Your task to perform on an android device: Open Google Chrome Image 0: 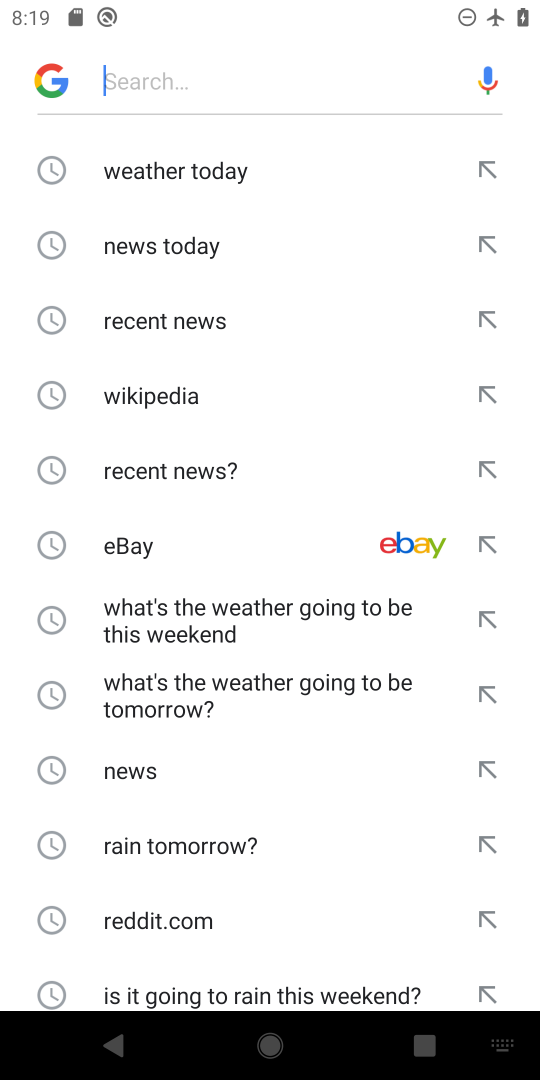
Step 0: press home button
Your task to perform on an android device: Open Google Chrome Image 1: 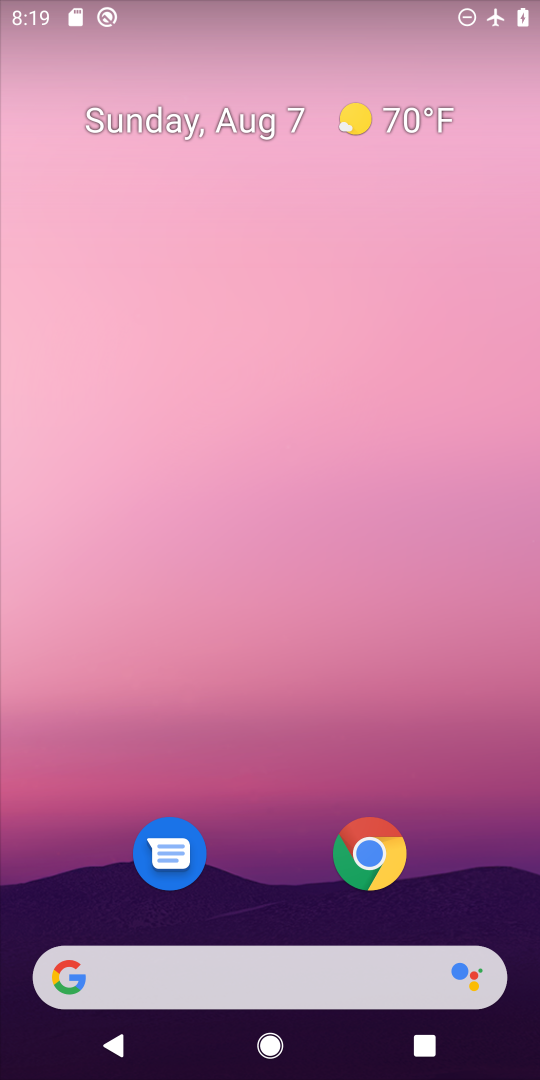
Step 1: click (396, 868)
Your task to perform on an android device: Open Google Chrome Image 2: 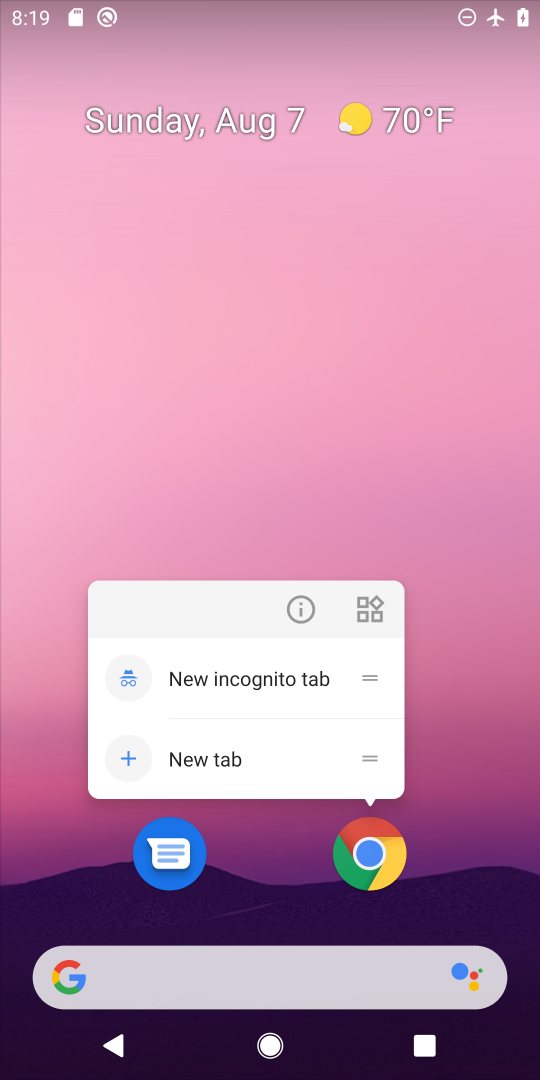
Step 2: click (388, 886)
Your task to perform on an android device: Open Google Chrome Image 3: 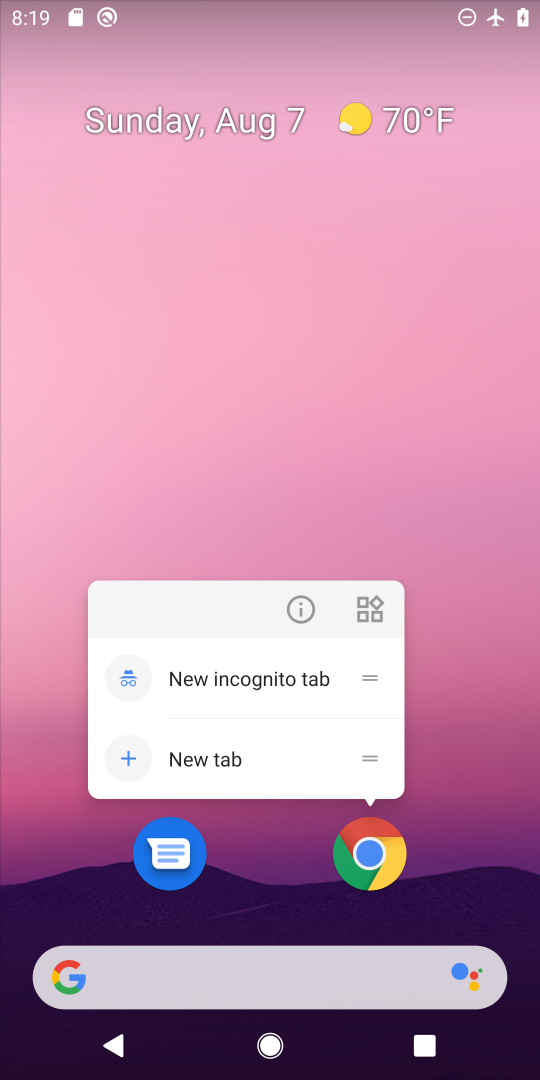
Step 3: click (396, 889)
Your task to perform on an android device: Open Google Chrome Image 4: 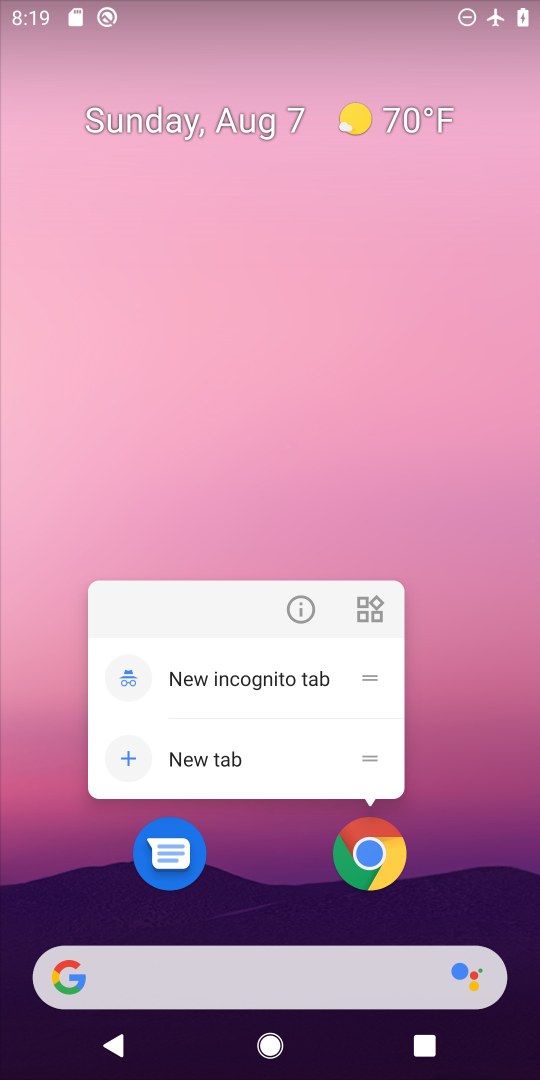
Step 4: click (395, 870)
Your task to perform on an android device: Open Google Chrome Image 5: 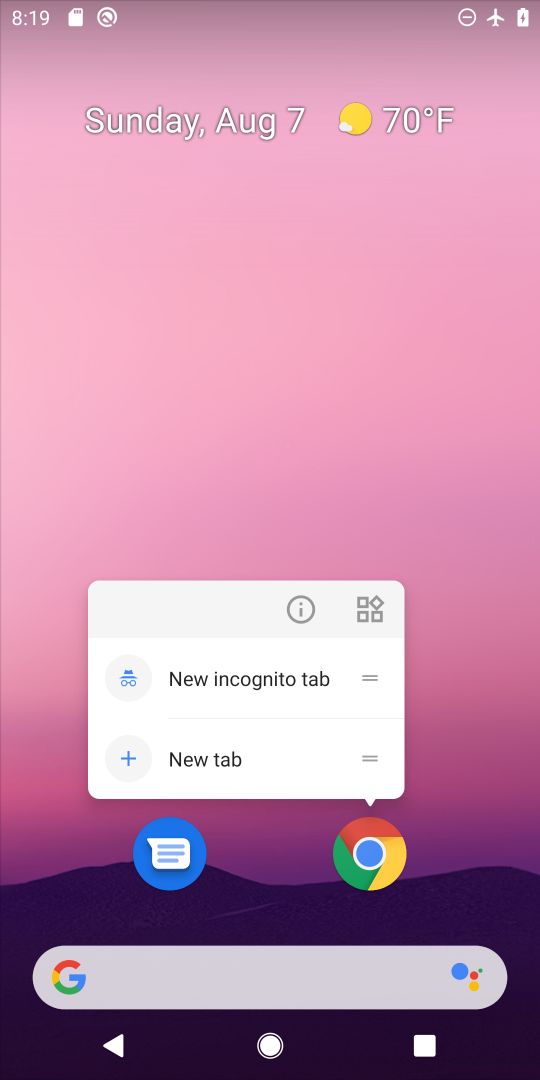
Step 5: click (374, 853)
Your task to perform on an android device: Open Google Chrome Image 6: 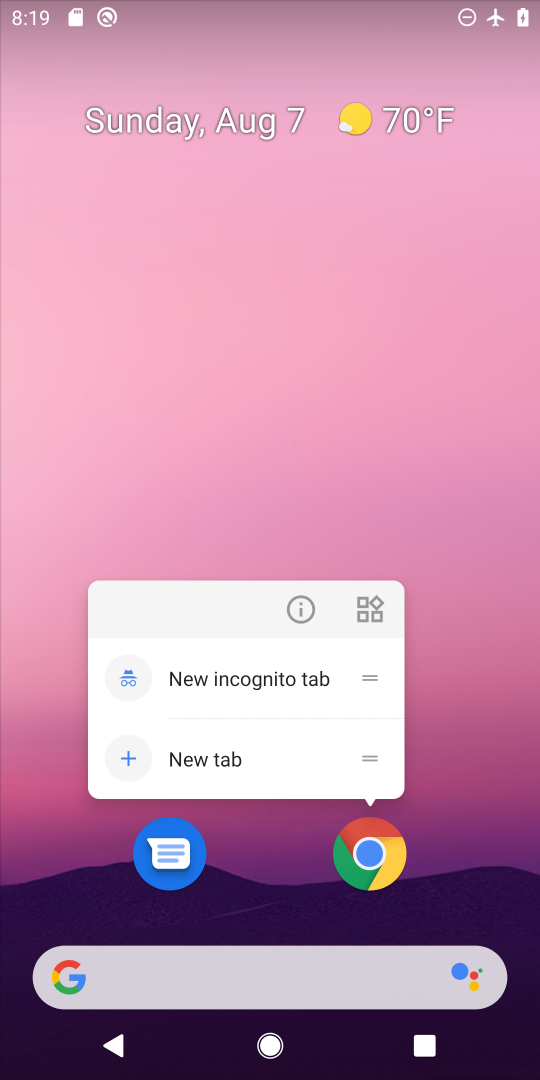
Step 6: click (377, 853)
Your task to perform on an android device: Open Google Chrome Image 7: 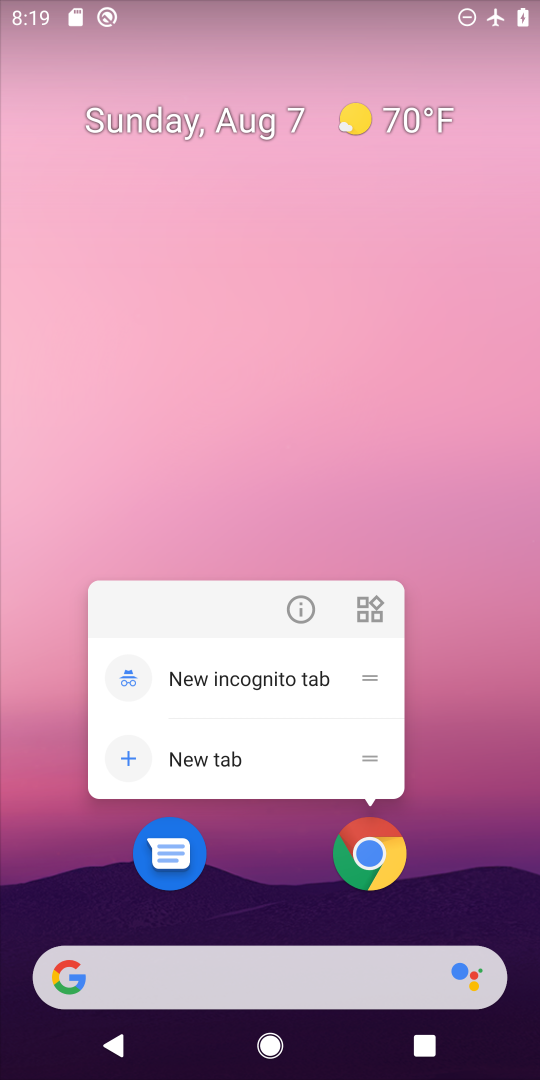
Step 7: click (379, 863)
Your task to perform on an android device: Open Google Chrome Image 8: 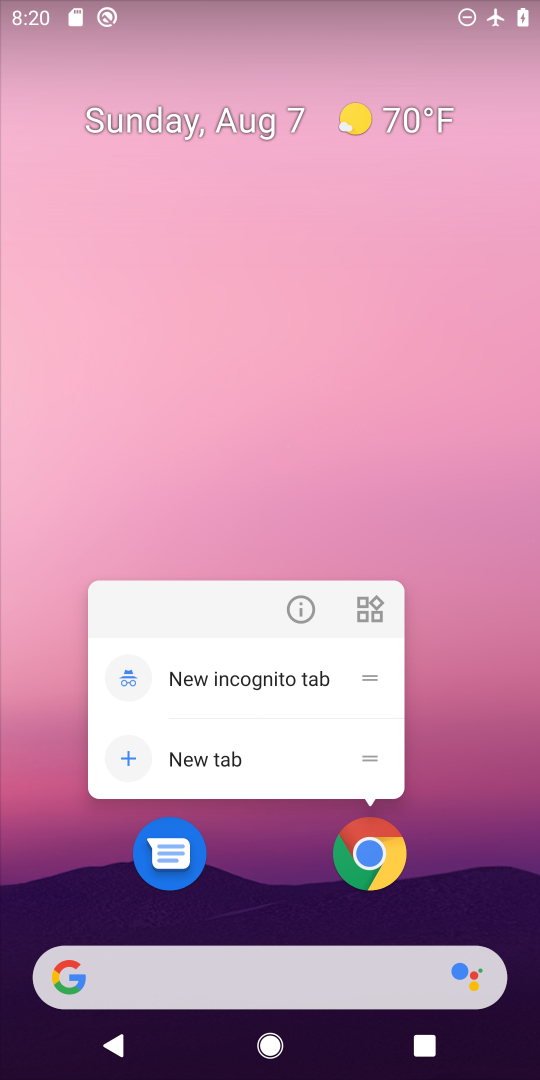
Step 8: click (386, 869)
Your task to perform on an android device: Open Google Chrome Image 9: 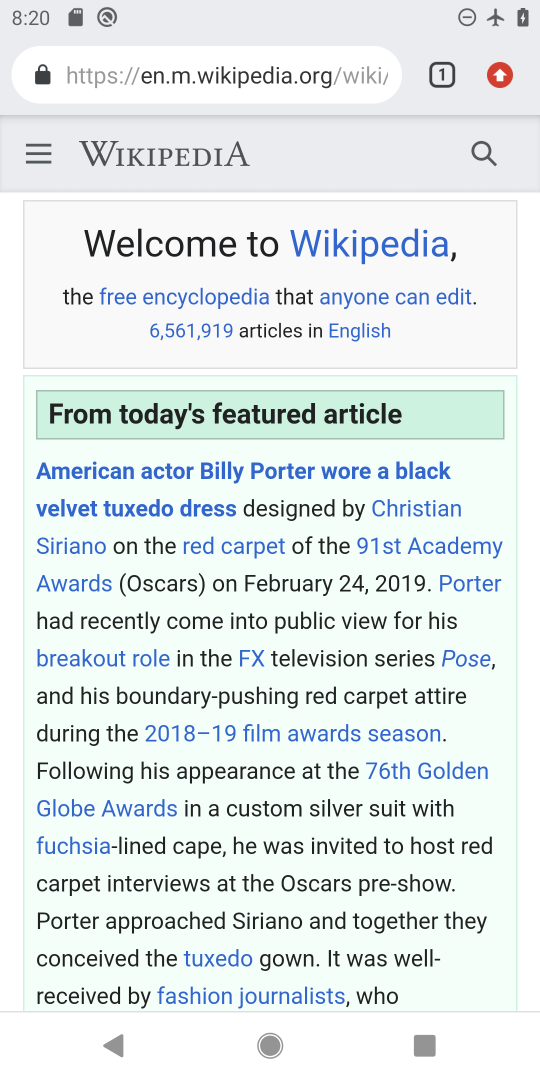
Step 9: task complete